Your task to perform on an android device: Open wifi settings Image 0: 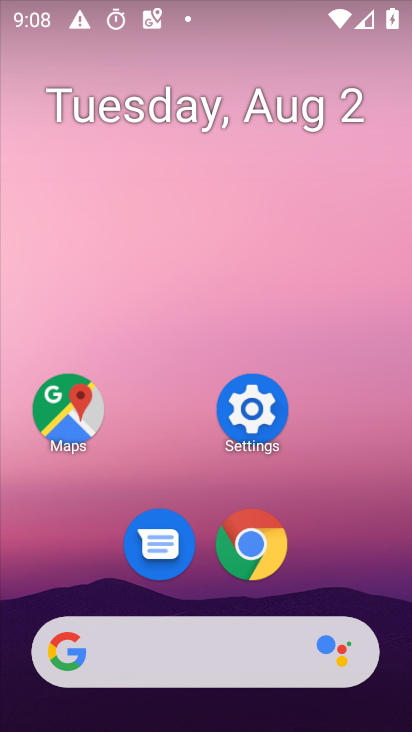
Step 0: click (241, 412)
Your task to perform on an android device: Open wifi settings Image 1: 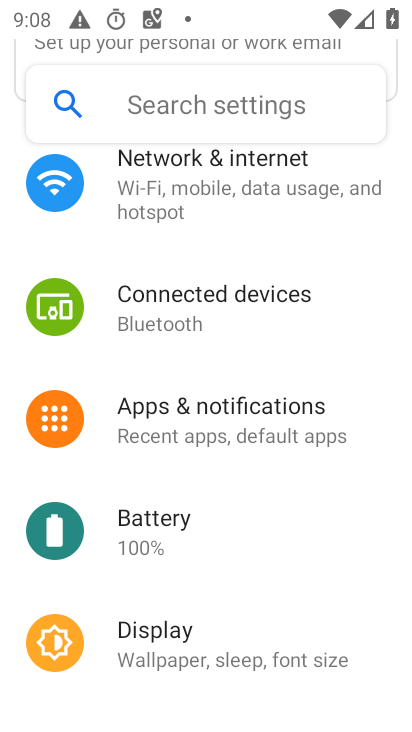
Step 1: drag from (281, 237) to (284, 630)
Your task to perform on an android device: Open wifi settings Image 2: 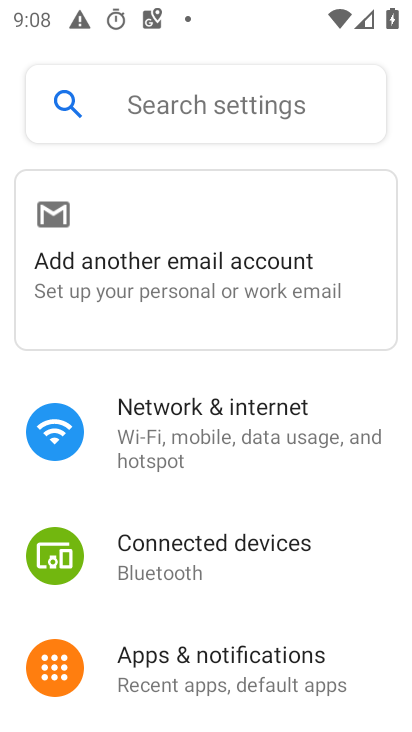
Step 2: click (207, 428)
Your task to perform on an android device: Open wifi settings Image 3: 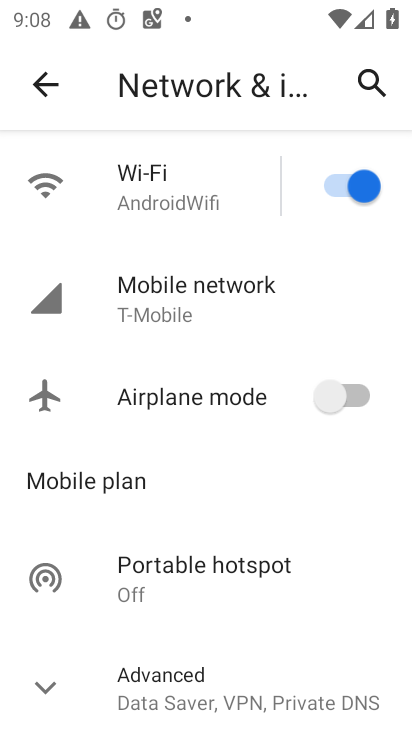
Step 3: click (138, 202)
Your task to perform on an android device: Open wifi settings Image 4: 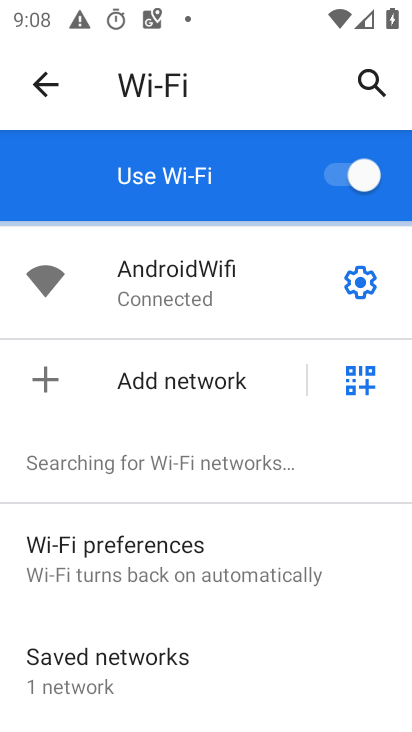
Step 4: task complete